Your task to perform on an android device: read, delete, or share a saved page in the chrome app Image 0: 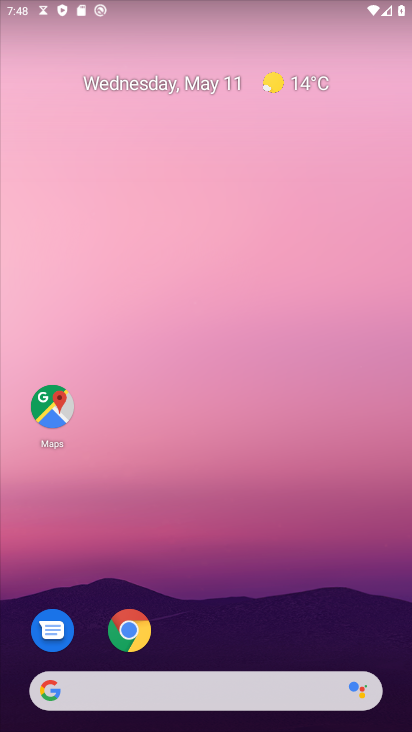
Step 0: drag from (267, 626) to (215, 29)
Your task to perform on an android device: read, delete, or share a saved page in the chrome app Image 1: 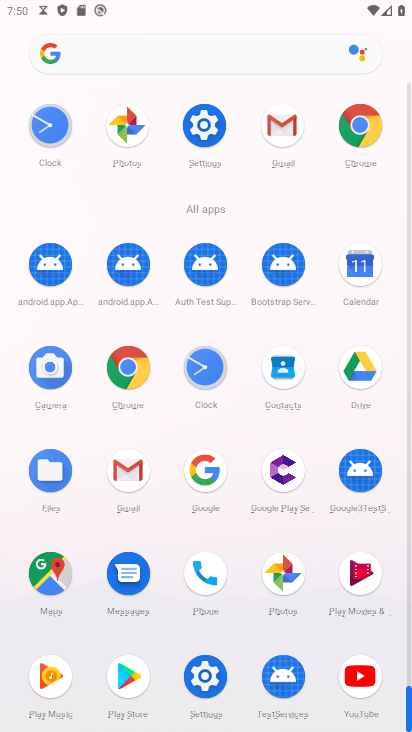
Step 1: click (359, 129)
Your task to perform on an android device: read, delete, or share a saved page in the chrome app Image 2: 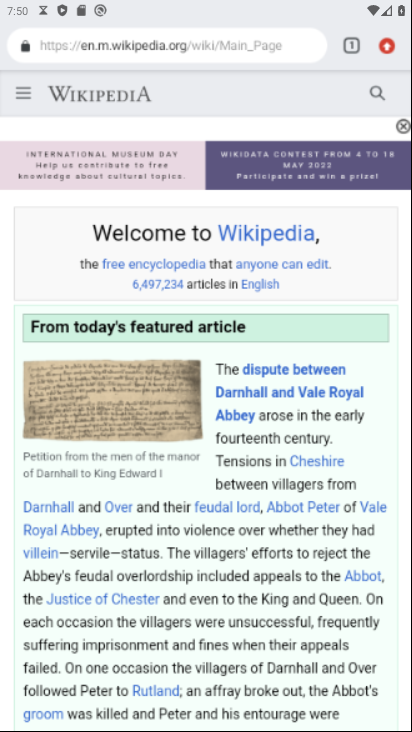
Step 2: click (339, 138)
Your task to perform on an android device: read, delete, or share a saved page in the chrome app Image 3: 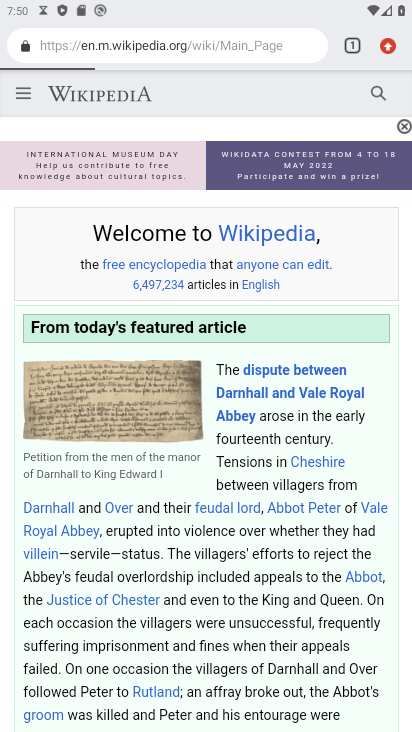
Step 3: click (351, 134)
Your task to perform on an android device: read, delete, or share a saved page in the chrome app Image 4: 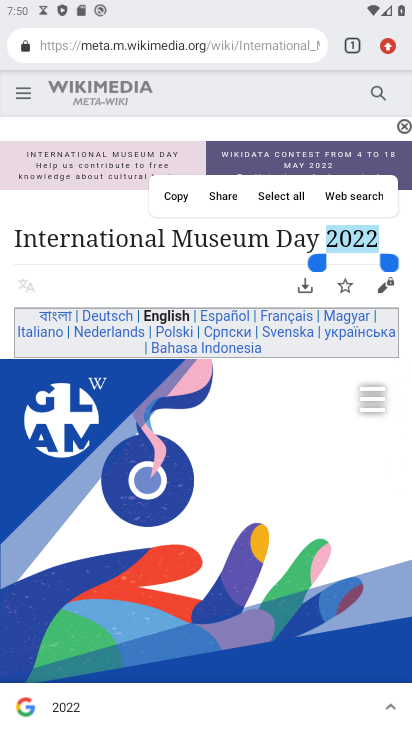
Step 4: click (385, 48)
Your task to perform on an android device: read, delete, or share a saved page in the chrome app Image 5: 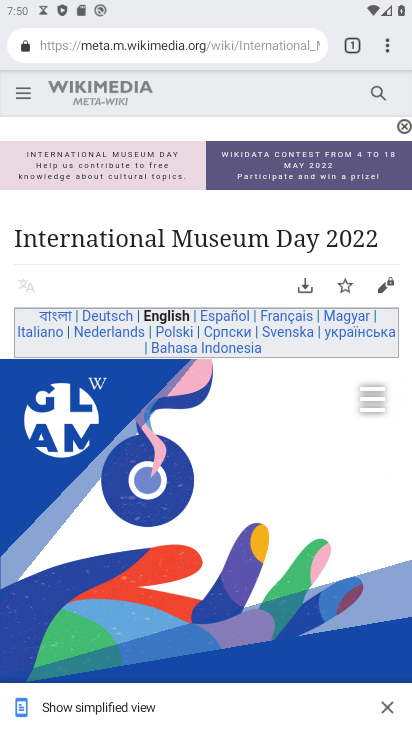
Step 5: drag from (384, 44) to (216, 344)
Your task to perform on an android device: read, delete, or share a saved page in the chrome app Image 6: 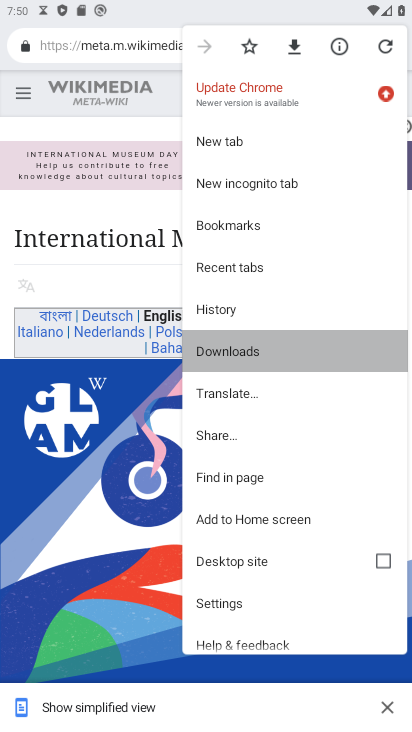
Step 6: click (216, 344)
Your task to perform on an android device: read, delete, or share a saved page in the chrome app Image 7: 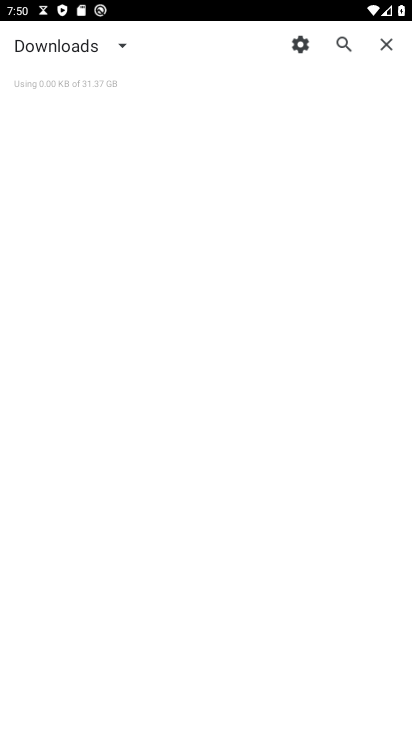
Step 7: click (119, 47)
Your task to perform on an android device: read, delete, or share a saved page in the chrome app Image 8: 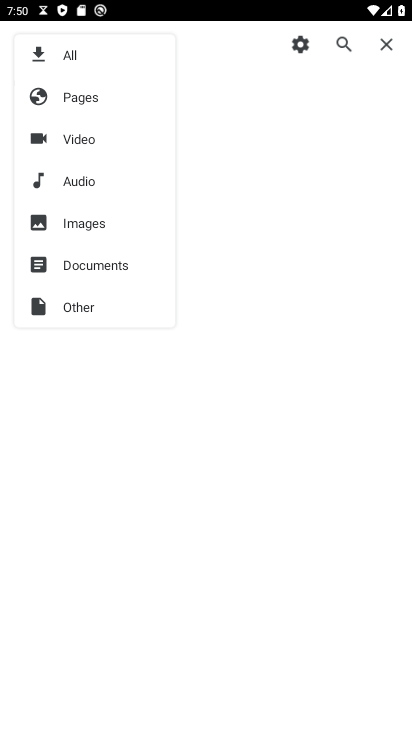
Step 8: click (82, 91)
Your task to perform on an android device: read, delete, or share a saved page in the chrome app Image 9: 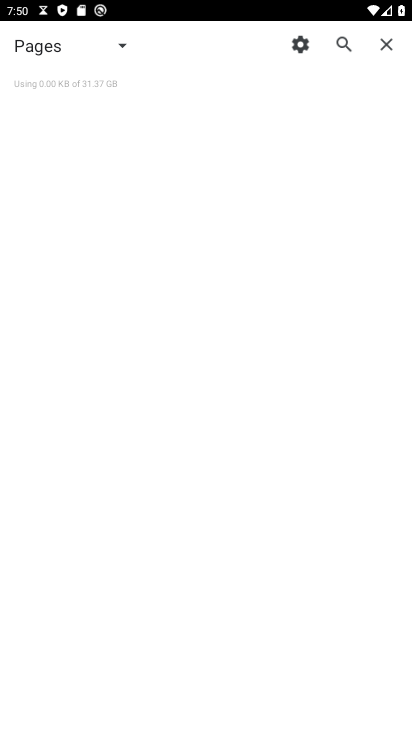
Step 9: task complete